Your task to perform on an android device: see tabs open on other devices in the chrome app Image 0: 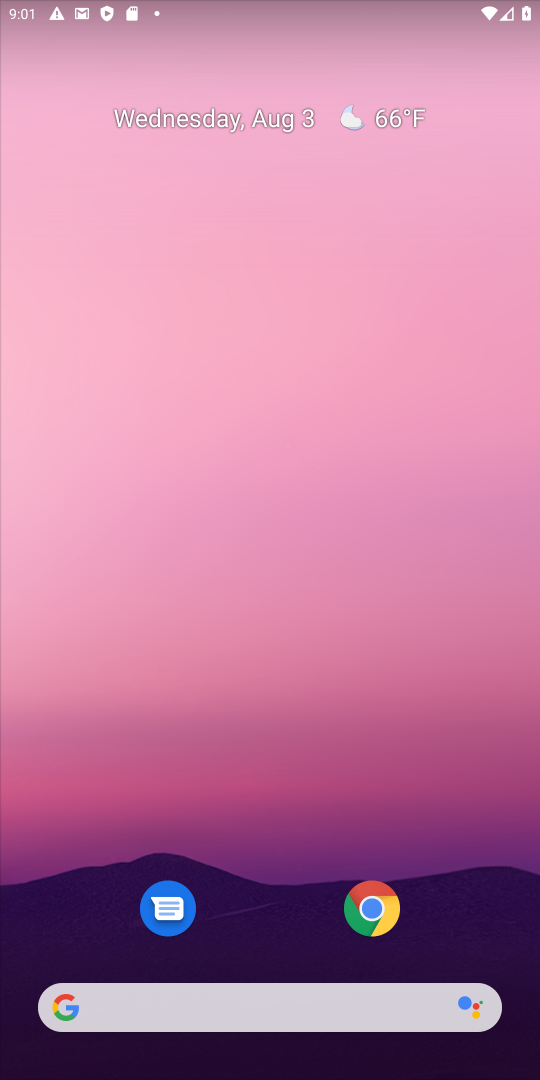
Step 0: drag from (324, 1010) to (514, 44)
Your task to perform on an android device: see tabs open on other devices in the chrome app Image 1: 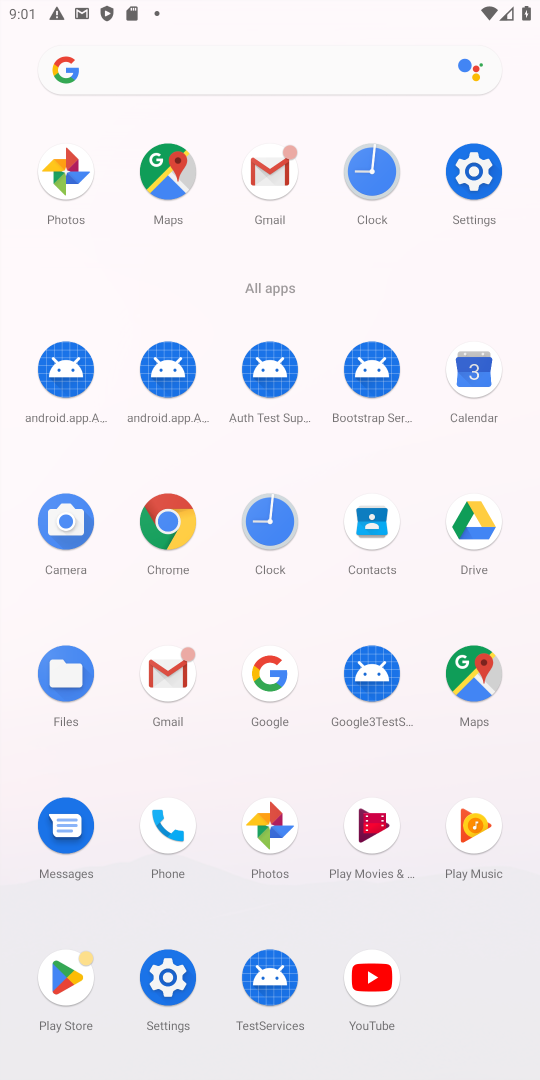
Step 1: click (175, 506)
Your task to perform on an android device: see tabs open on other devices in the chrome app Image 2: 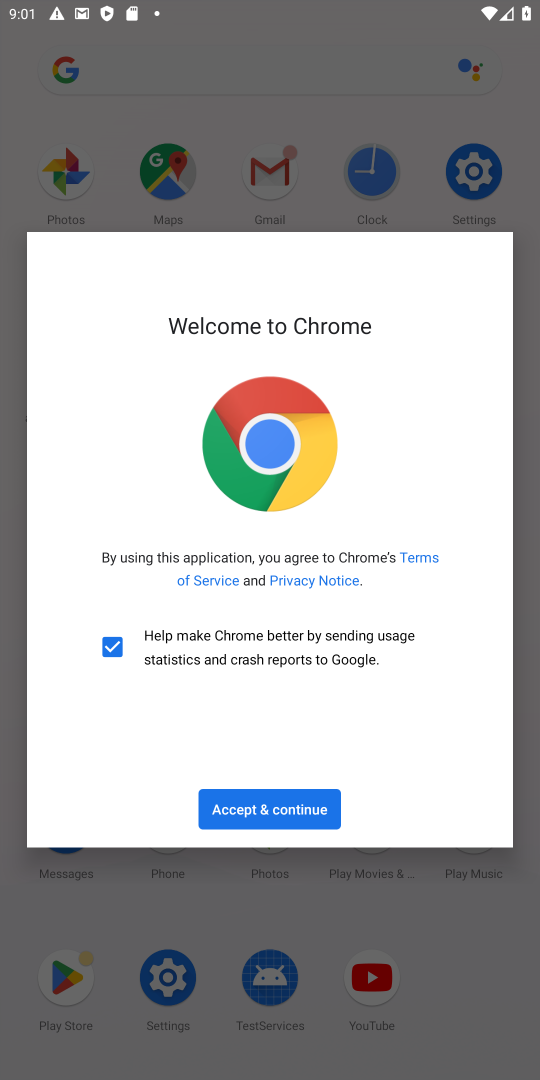
Step 2: click (306, 813)
Your task to perform on an android device: see tabs open on other devices in the chrome app Image 3: 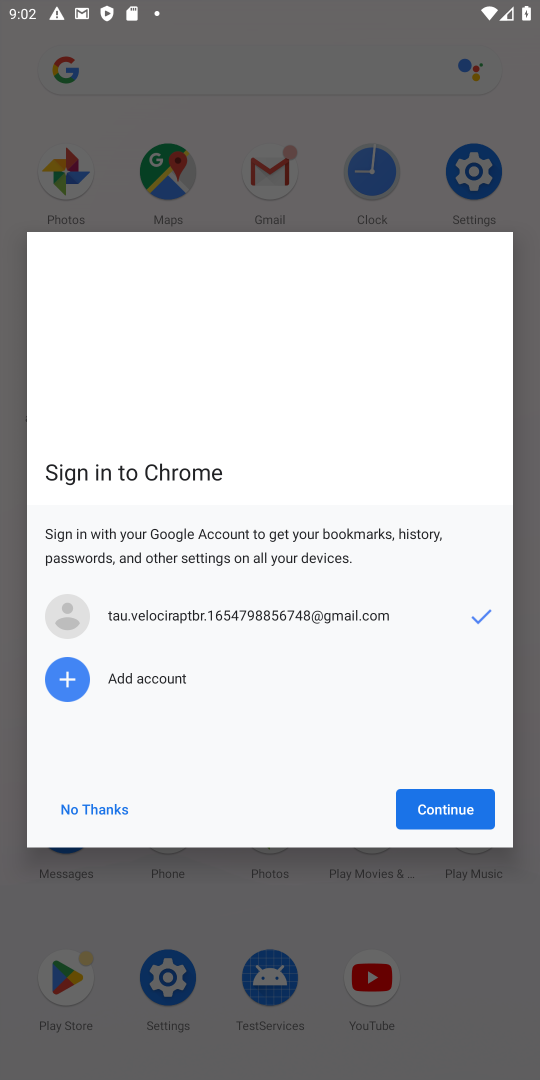
Step 3: click (104, 811)
Your task to perform on an android device: see tabs open on other devices in the chrome app Image 4: 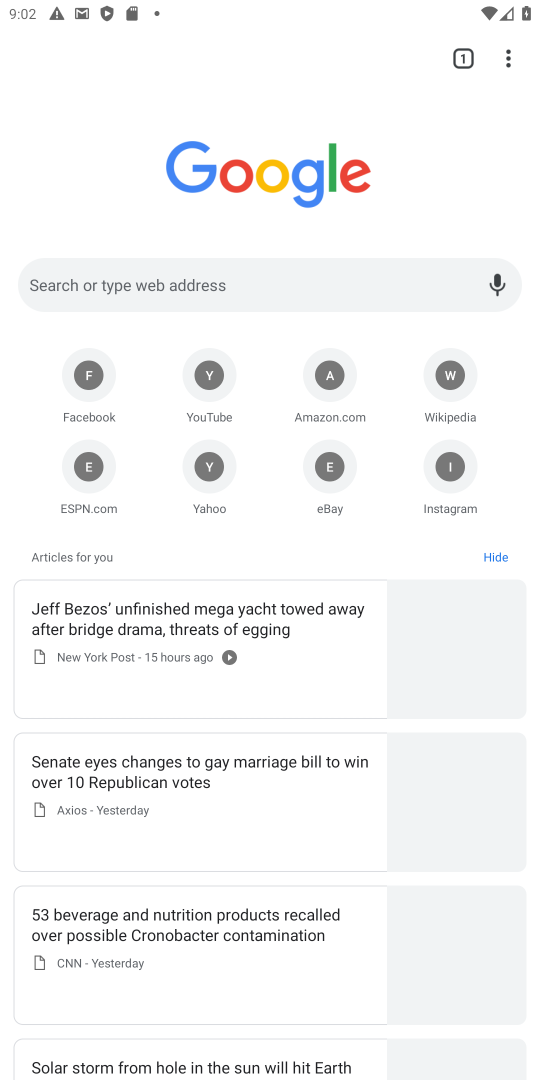
Step 4: click (499, 44)
Your task to perform on an android device: see tabs open on other devices in the chrome app Image 5: 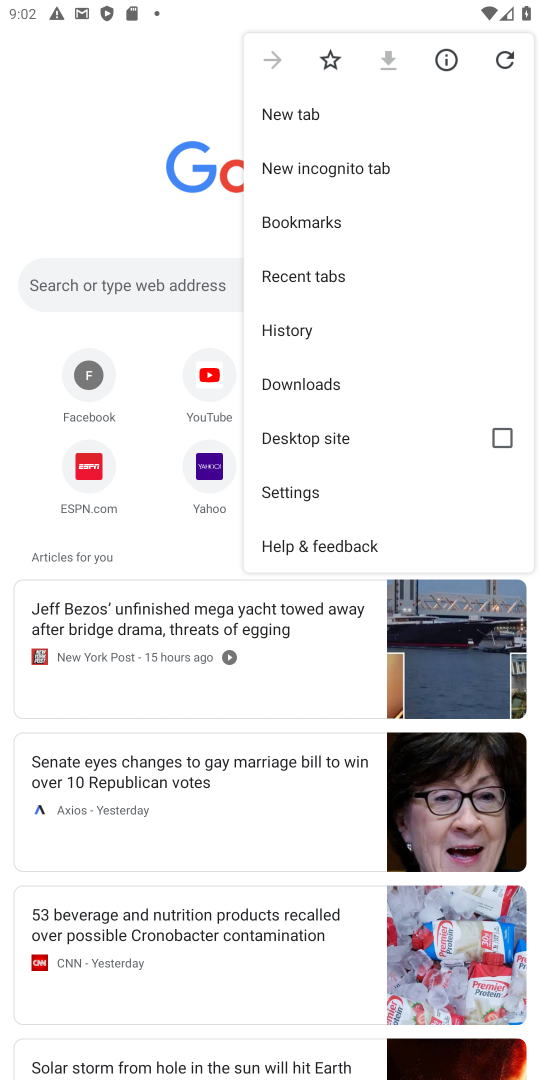
Step 5: click (286, 266)
Your task to perform on an android device: see tabs open on other devices in the chrome app Image 6: 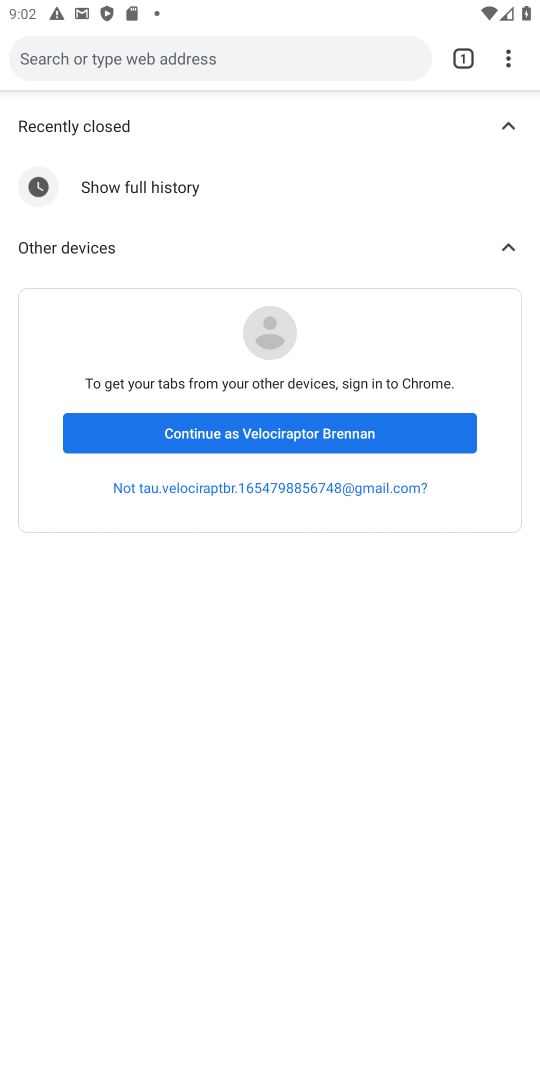
Step 6: task complete